Your task to perform on an android device: turn off sleep mode Image 0: 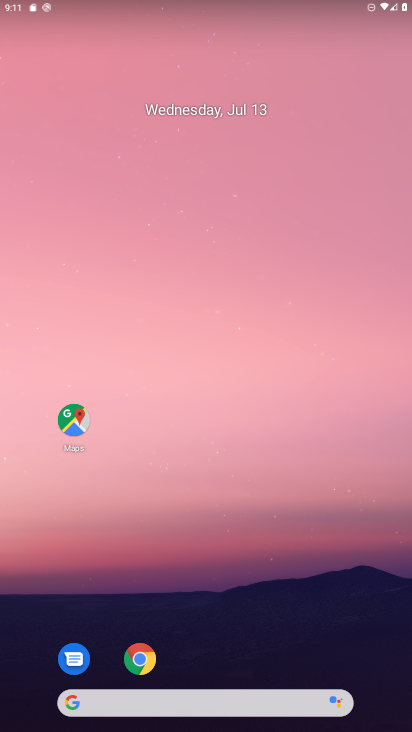
Step 0: drag from (196, 657) to (236, 107)
Your task to perform on an android device: turn off sleep mode Image 1: 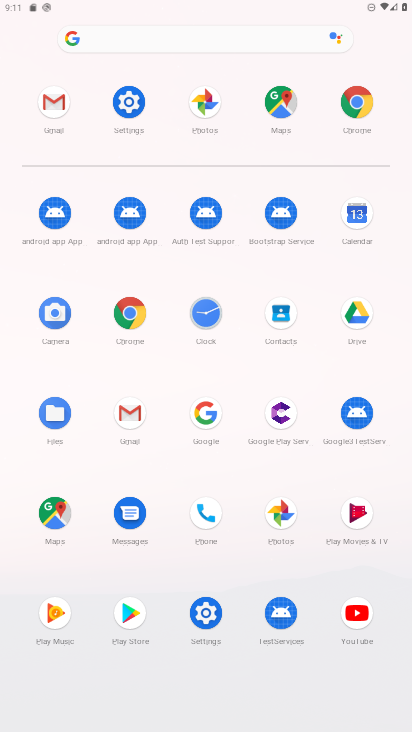
Step 1: click (199, 617)
Your task to perform on an android device: turn off sleep mode Image 2: 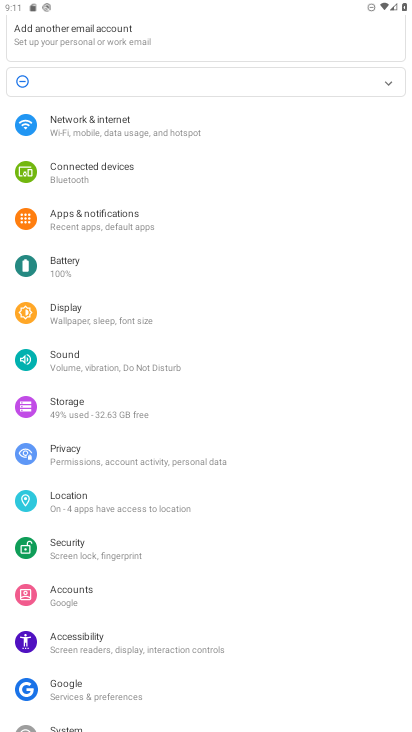
Step 2: click (136, 311)
Your task to perform on an android device: turn off sleep mode Image 3: 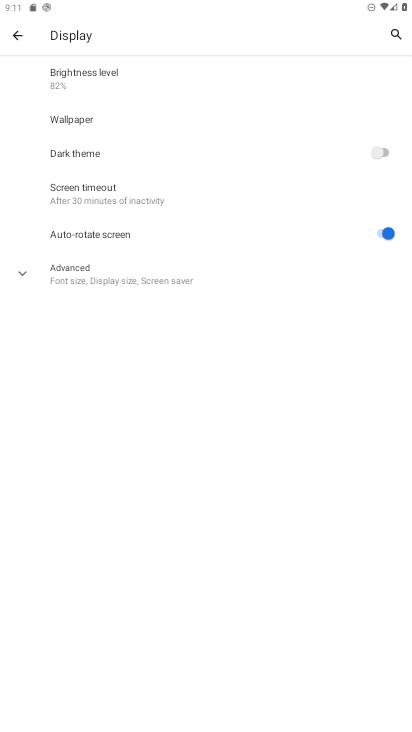
Step 3: click (146, 203)
Your task to perform on an android device: turn off sleep mode Image 4: 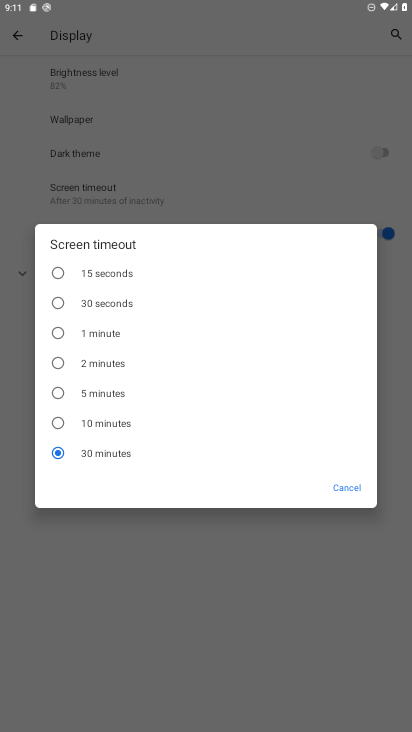
Step 4: task complete